Your task to perform on an android device: turn off data saver in the chrome app Image 0: 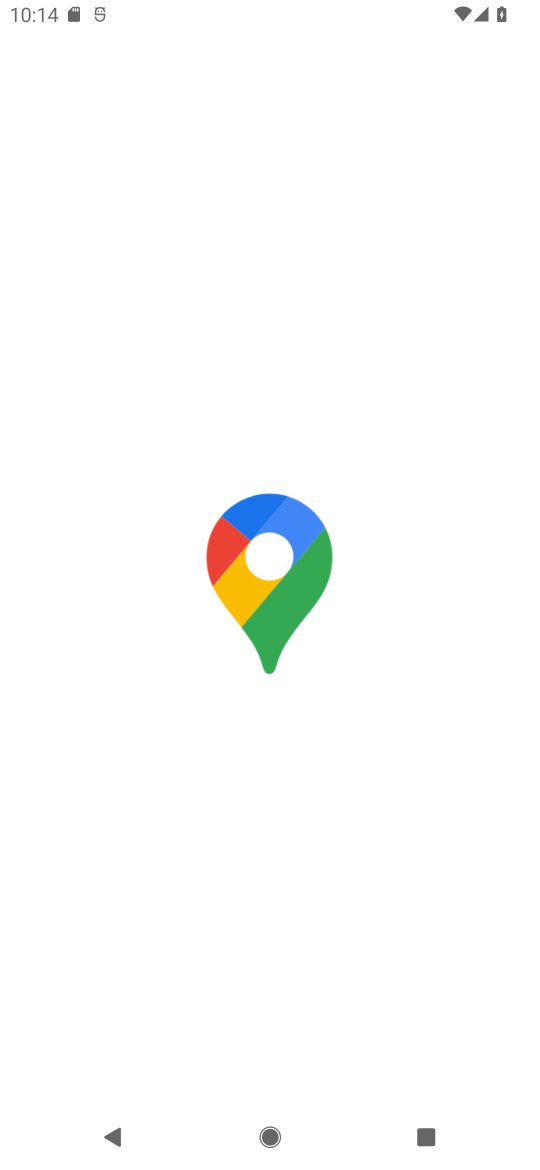
Step 0: press home button
Your task to perform on an android device: turn off data saver in the chrome app Image 1: 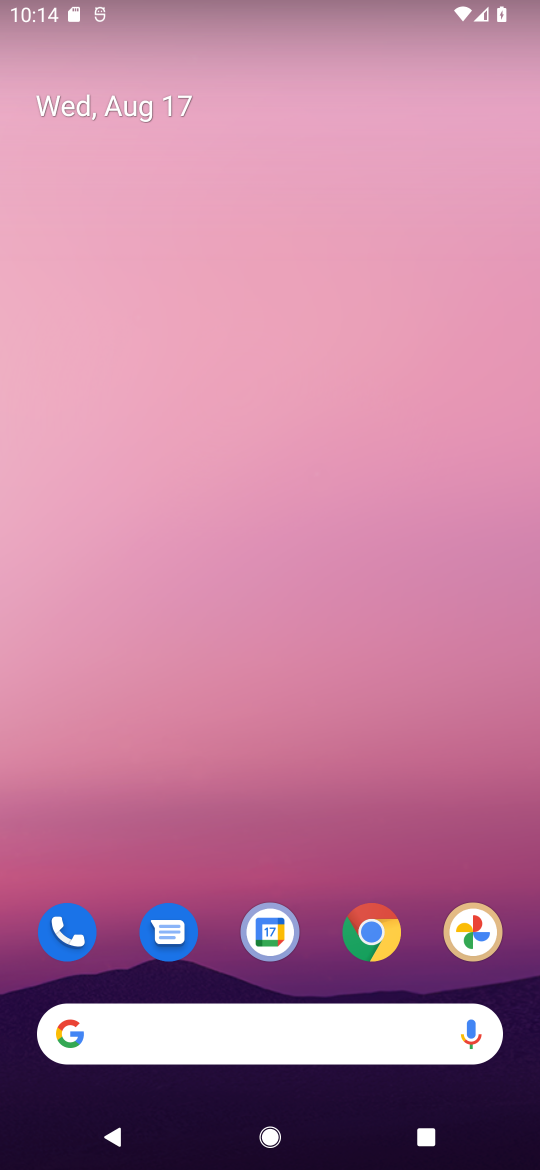
Step 1: click (374, 938)
Your task to perform on an android device: turn off data saver in the chrome app Image 2: 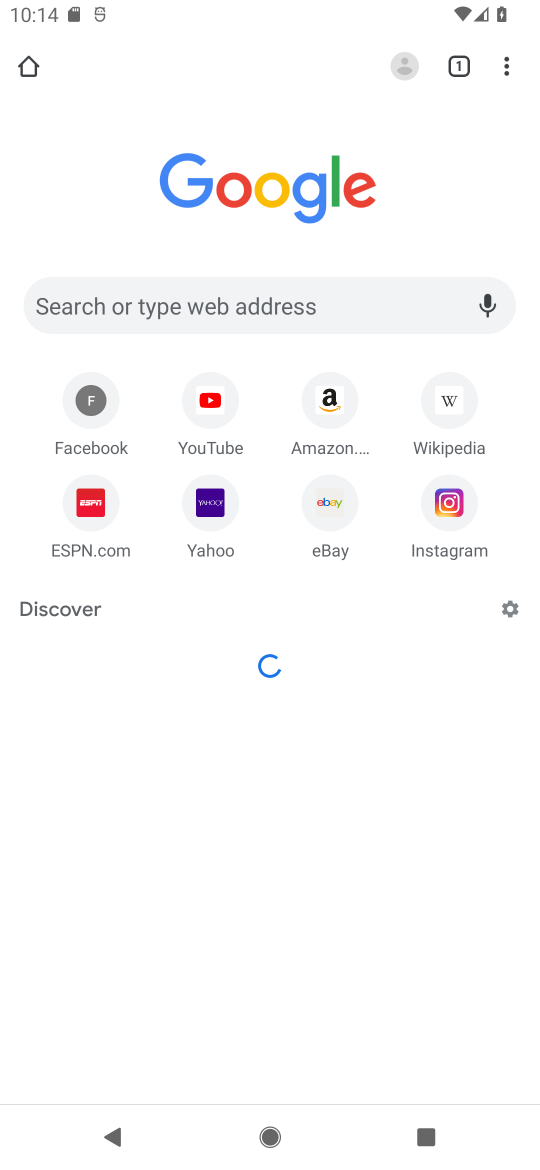
Step 2: drag from (508, 72) to (317, 567)
Your task to perform on an android device: turn off data saver in the chrome app Image 3: 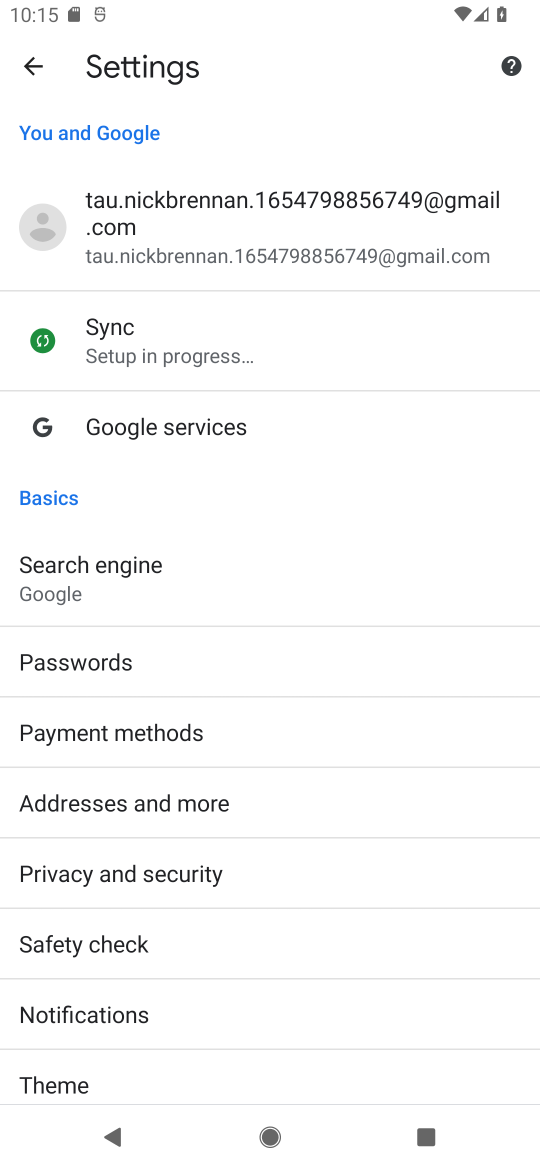
Step 3: drag from (168, 1039) to (199, 510)
Your task to perform on an android device: turn off data saver in the chrome app Image 4: 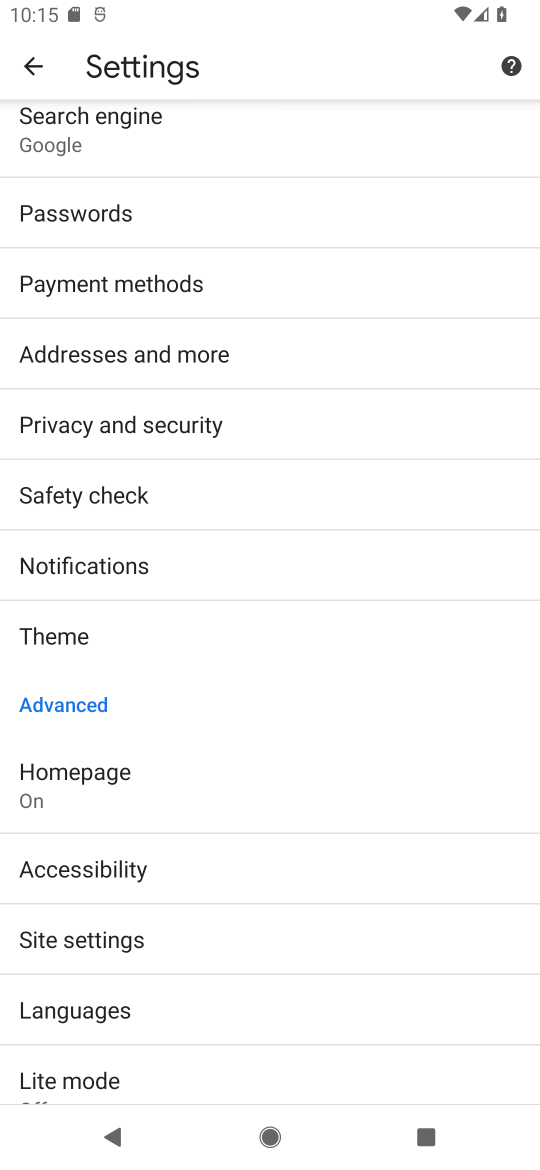
Step 4: drag from (159, 1025) to (189, 590)
Your task to perform on an android device: turn off data saver in the chrome app Image 5: 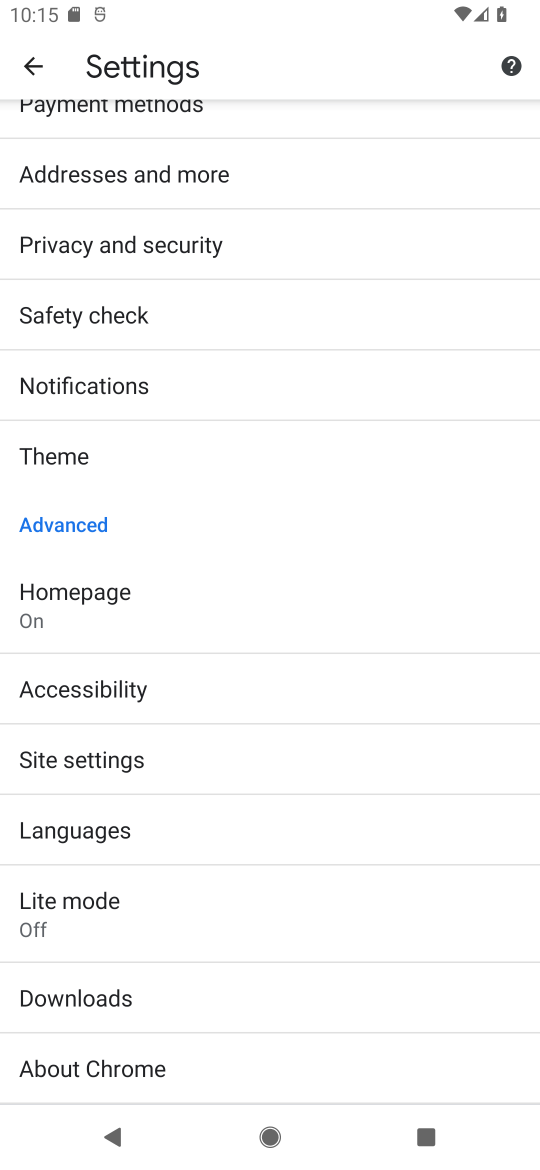
Step 5: click (123, 913)
Your task to perform on an android device: turn off data saver in the chrome app Image 6: 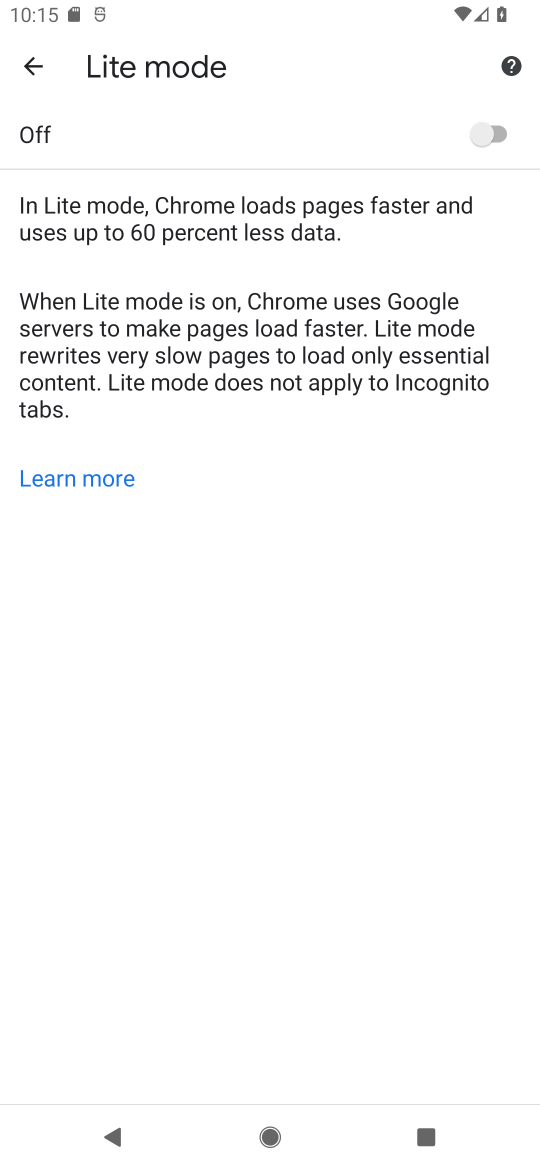
Step 6: task complete